Your task to perform on an android device: open chrome and create a bookmark for the current page Image 0: 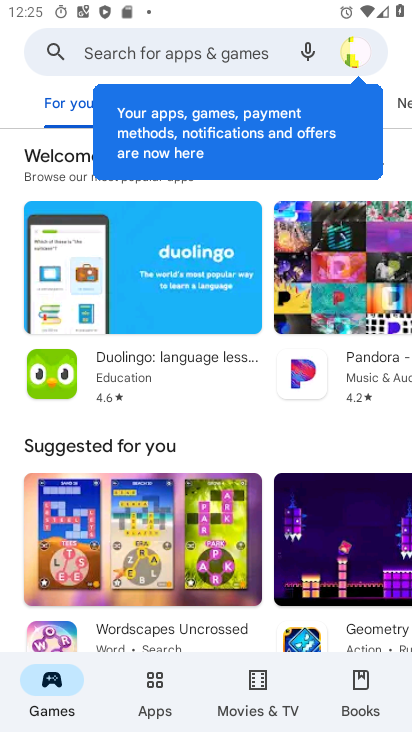
Step 0: press home button
Your task to perform on an android device: open chrome and create a bookmark for the current page Image 1: 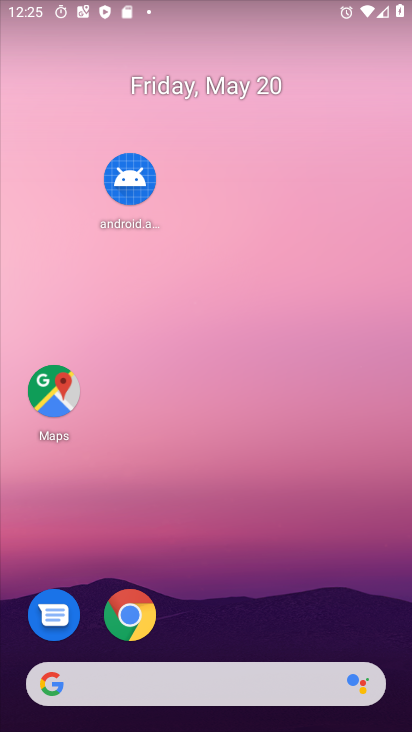
Step 1: click (123, 615)
Your task to perform on an android device: open chrome and create a bookmark for the current page Image 2: 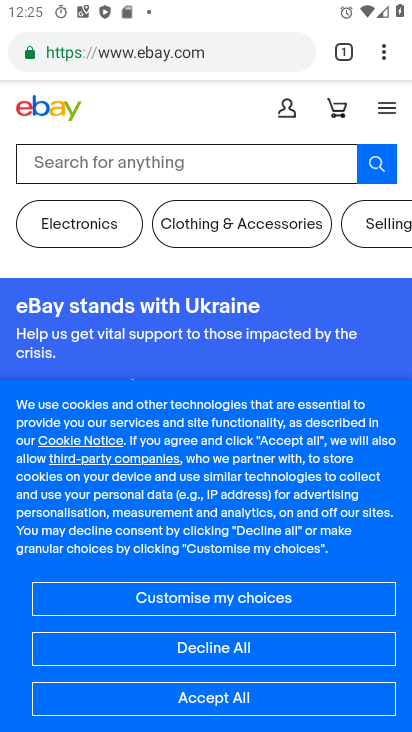
Step 2: click (383, 42)
Your task to perform on an android device: open chrome and create a bookmark for the current page Image 3: 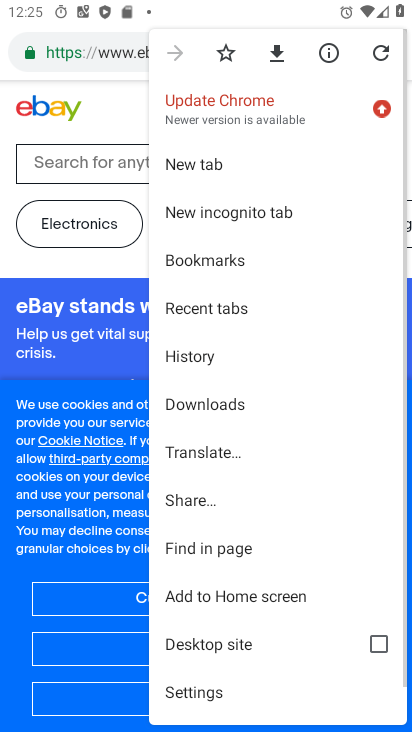
Step 3: click (229, 54)
Your task to perform on an android device: open chrome and create a bookmark for the current page Image 4: 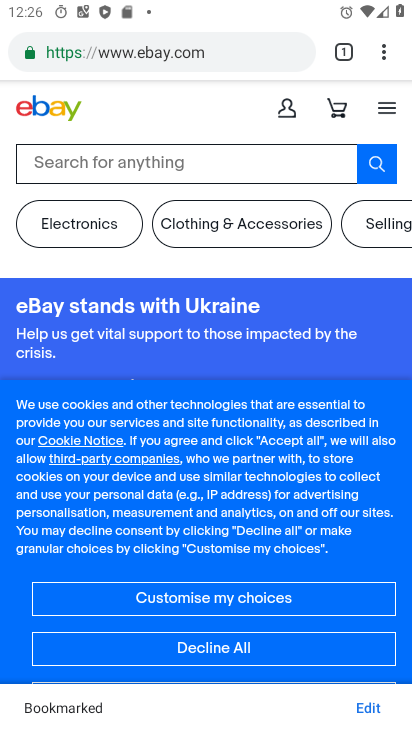
Step 4: task complete